Your task to perform on an android device: Open sound settings Image 0: 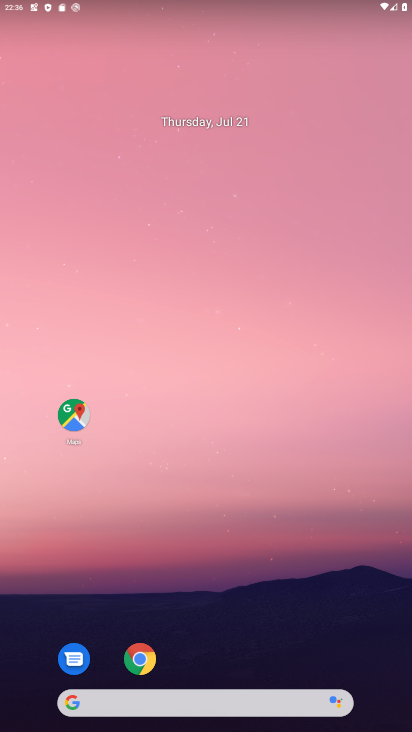
Step 0: drag from (297, 606) to (246, 38)
Your task to perform on an android device: Open sound settings Image 1: 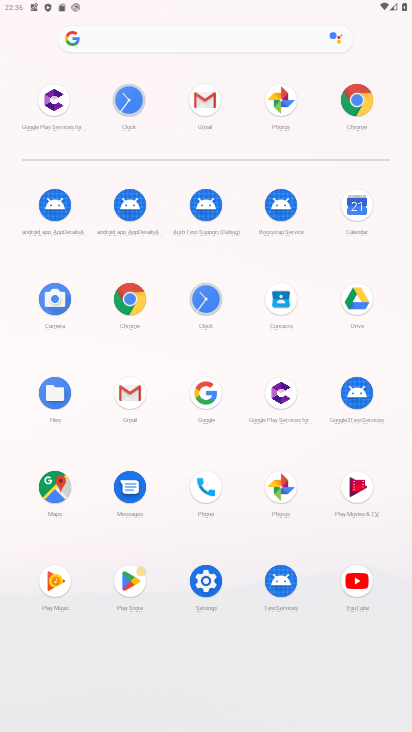
Step 1: click (203, 581)
Your task to perform on an android device: Open sound settings Image 2: 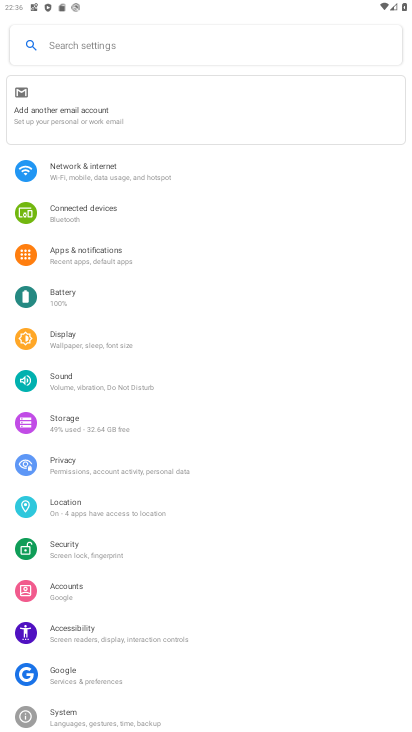
Step 2: click (105, 381)
Your task to perform on an android device: Open sound settings Image 3: 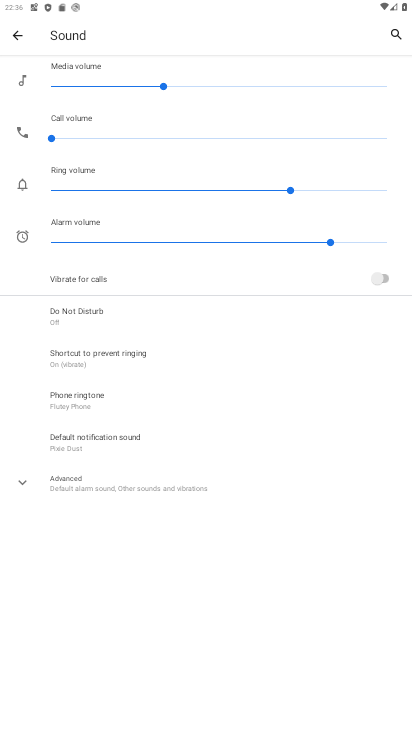
Step 3: task complete